Your task to perform on an android device: Go to ESPN.com Image 0: 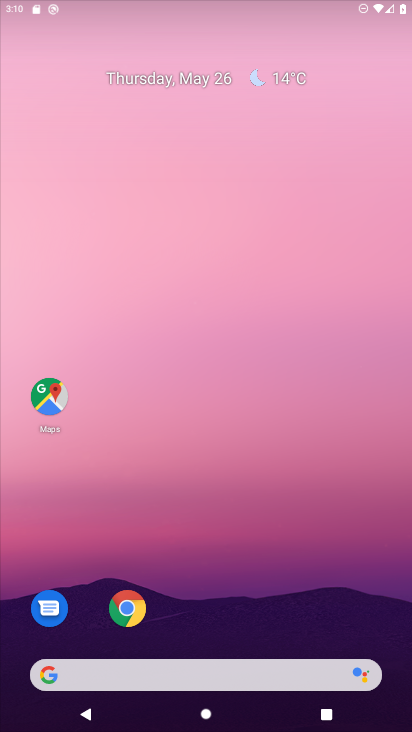
Step 0: drag from (363, 513) to (367, 119)
Your task to perform on an android device: Go to ESPN.com Image 1: 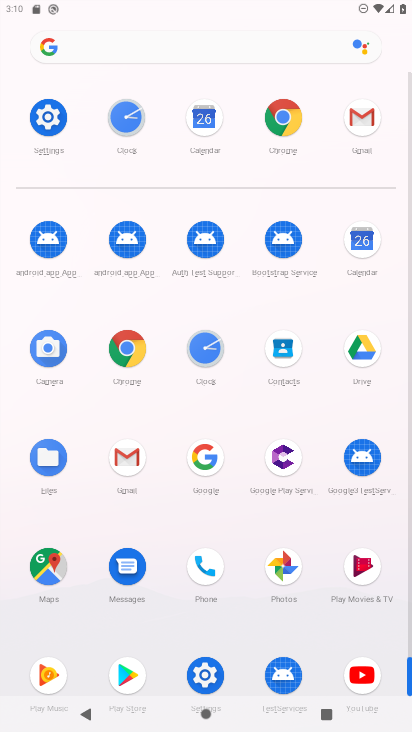
Step 1: click (298, 134)
Your task to perform on an android device: Go to ESPN.com Image 2: 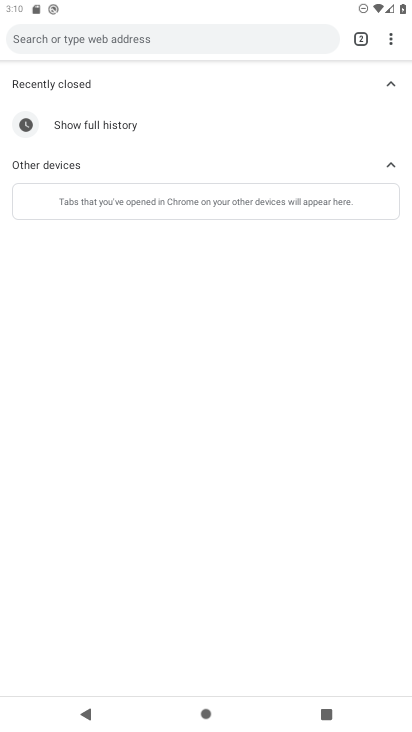
Step 2: click (183, 42)
Your task to perform on an android device: Go to ESPN.com Image 3: 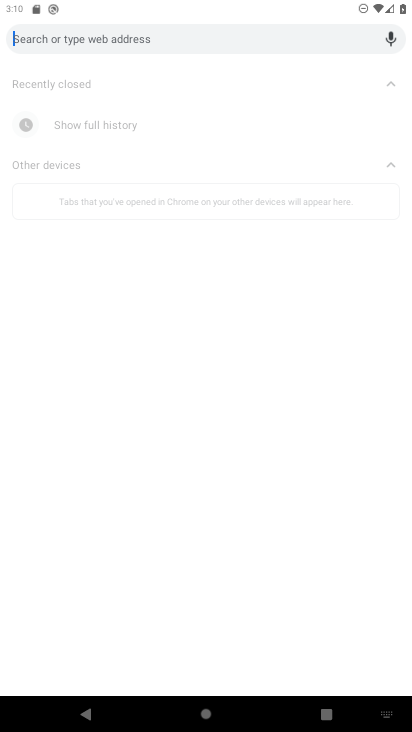
Step 3: type "espn"
Your task to perform on an android device: Go to ESPN.com Image 4: 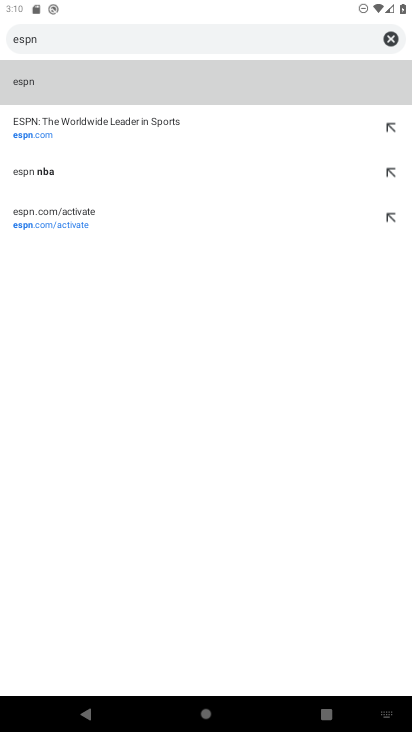
Step 4: click (47, 121)
Your task to perform on an android device: Go to ESPN.com Image 5: 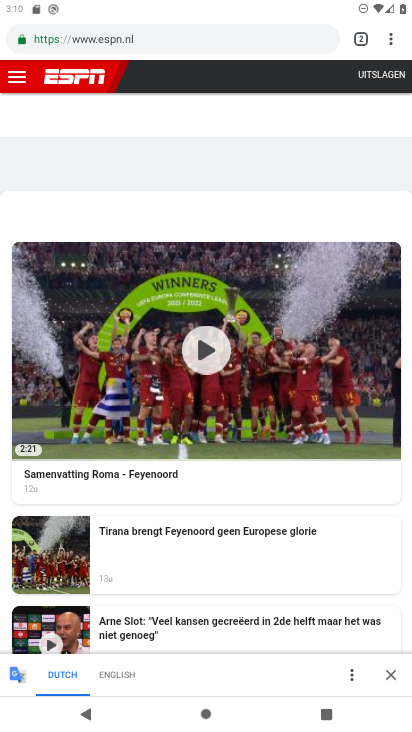
Step 5: task complete